Your task to perform on an android device: turn on showing notifications on the lock screen Image 0: 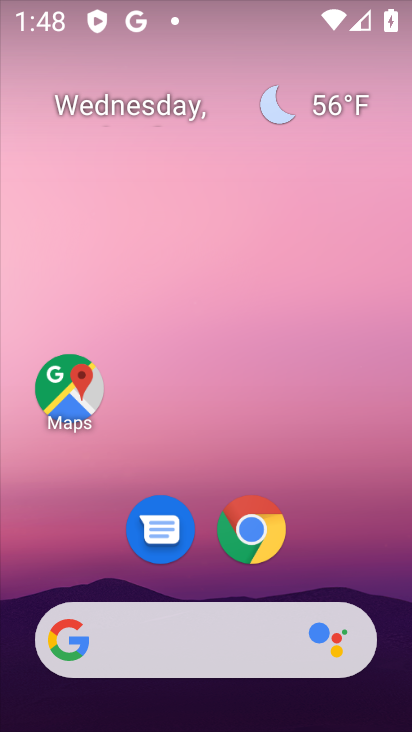
Step 0: drag from (340, 509) to (323, 243)
Your task to perform on an android device: turn on showing notifications on the lock screen Image 1: 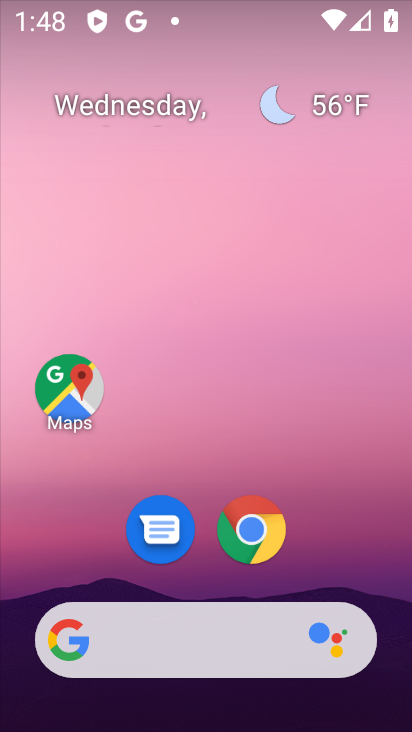
Step 1: drag from (335, 528) to (355, 136)
Your task to perform on an android device: turn on showing notifications on the lock screen Image 2: 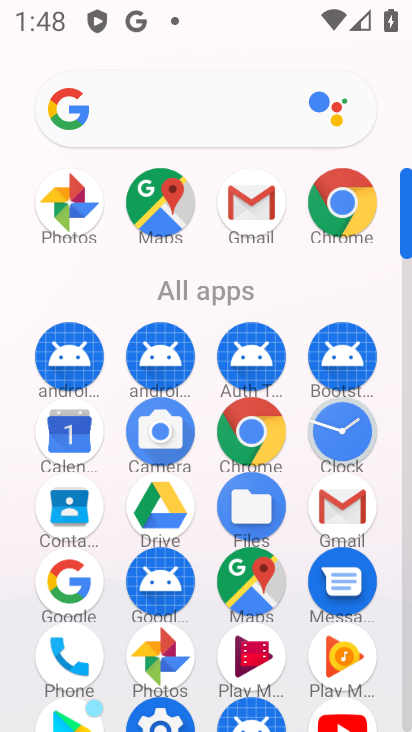
Step 2: drag from (300, 299) to (277, 169)
Your task to perform on an android device: turn on showing notifications on the lock screen Image 3: 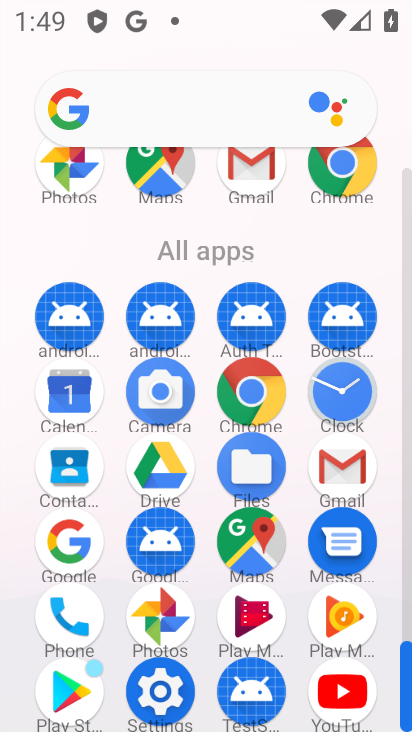
Step 3: click (178, 683)
Your task to perform on an android device: turn on showing notifications on the lock screen Image 4: 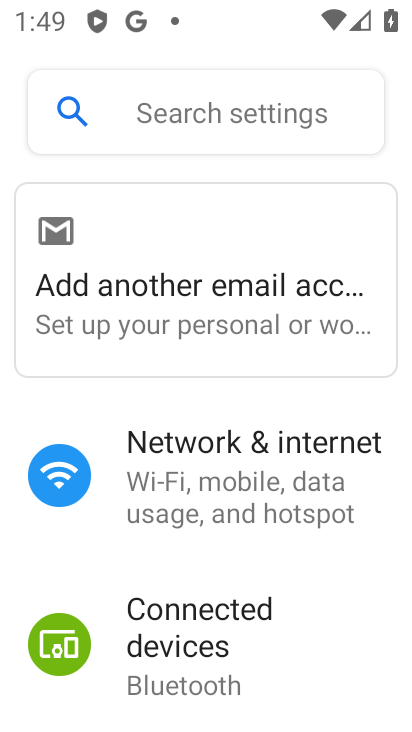
Step 4: drag from (242, 575) to (276, 336)
Your task to perform on an android device: turn on showing notifications on the lock screen Image 5: 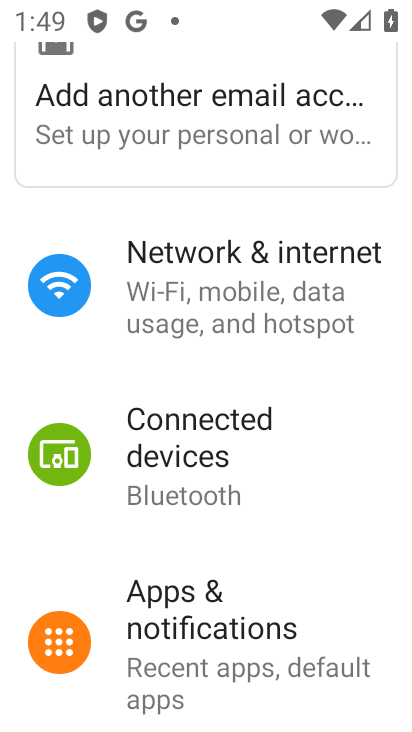
Step 5: click (240, 617)
Your task to perform on an android device: turn on showing notifications on the lock screen Image 6: 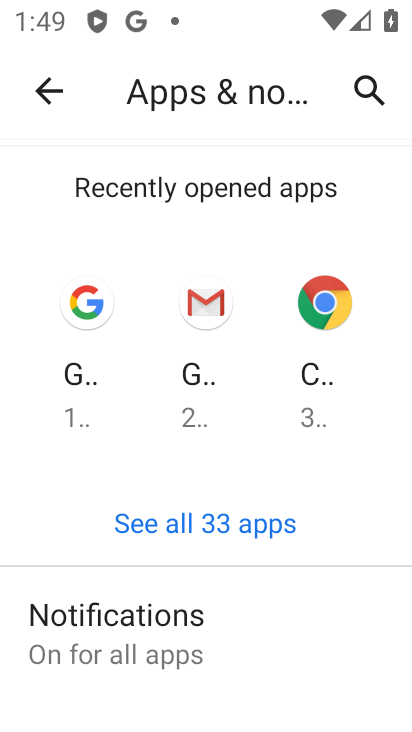
Step 6: click (251, 604)
Your task to perform on an android device: turn on showing notifications on the lock screen Image 7: 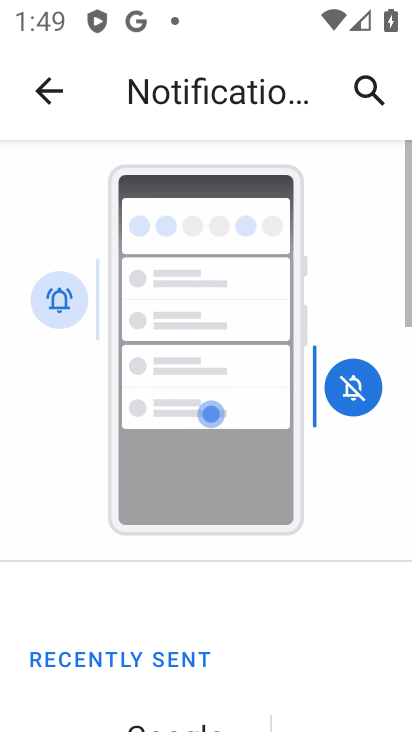
Step 7: drag from (251, 604) to (259, 102)
Your task to perform on an android device: turn on showing notifications on the lock screen Image 8: 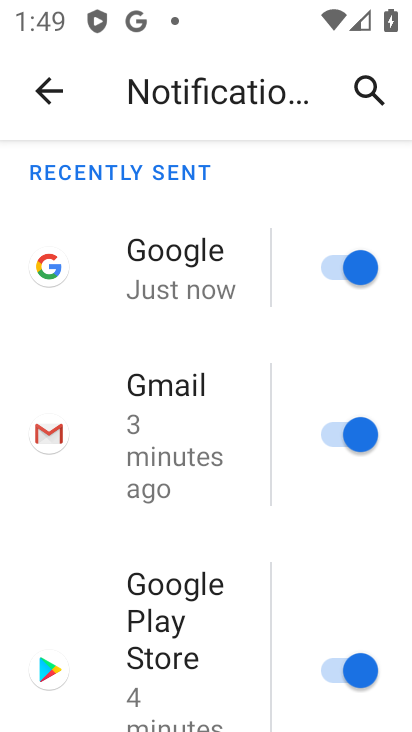
Step 8: drag from (278, 707) to (307, 252)
Your task to perform on an android device: turn on showing notifications on the lock screen Image 9: 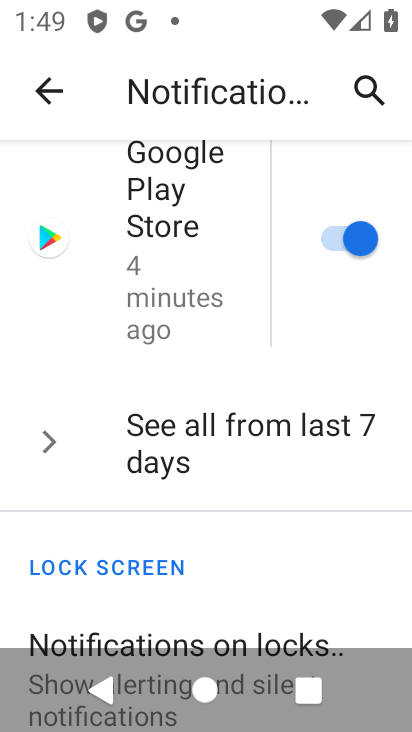
Step 9: drag from (295, 491) to (318, 189)
Your task to perform on an android device: turn on showing notifications on the lock screen Image 10: 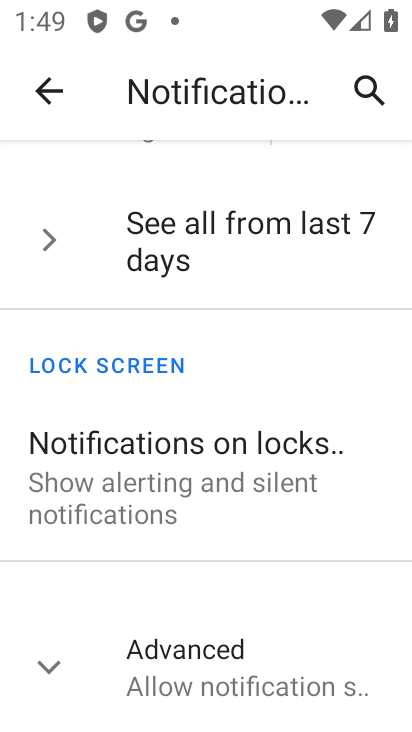
Step 10: click (203, 519)
Your task to perform on an android device: turn on showing notifications on the lock screen Image 11: 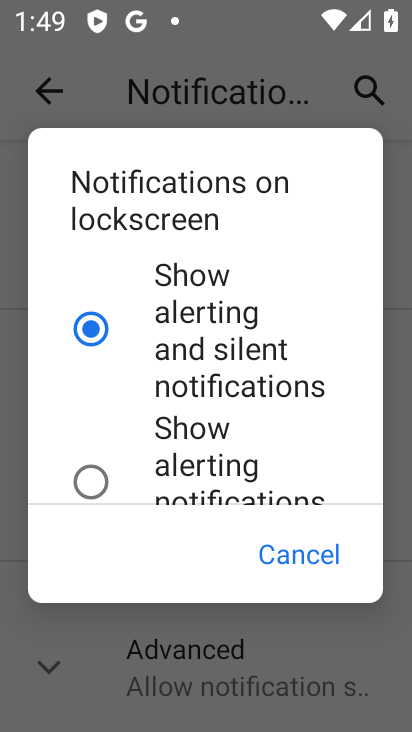
Step 11: task complete